Your task to perform on an android device: Open wifi settings Image 0: 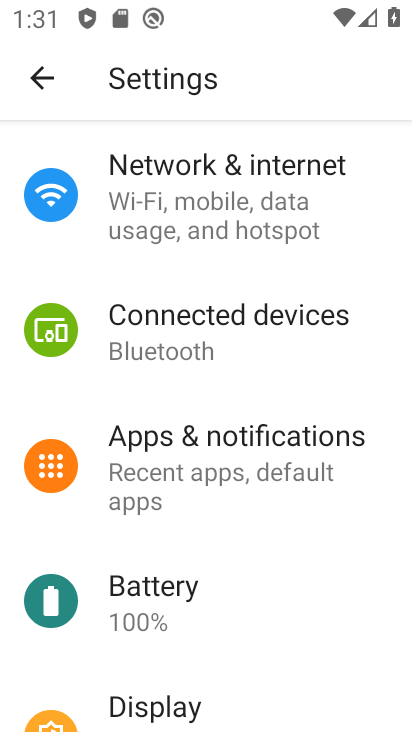
Step 0: drag from (130, 14) to (221, 647)
Your task to perform on an android device: Open wifi settings Image 1: 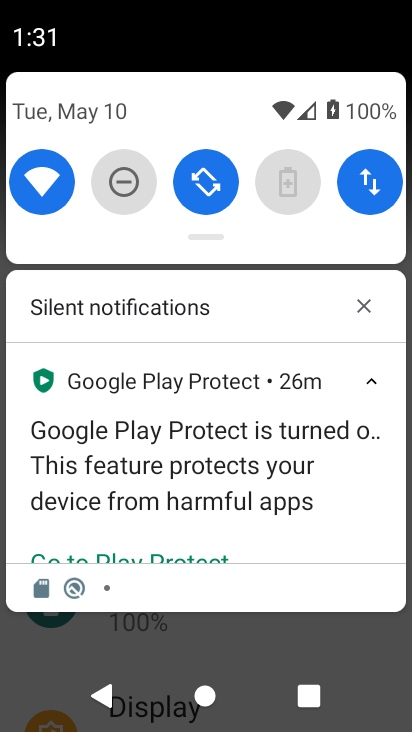
Step 1: click (44, 190)
Your task to perform on an android device: Open wifi settings Image 2: 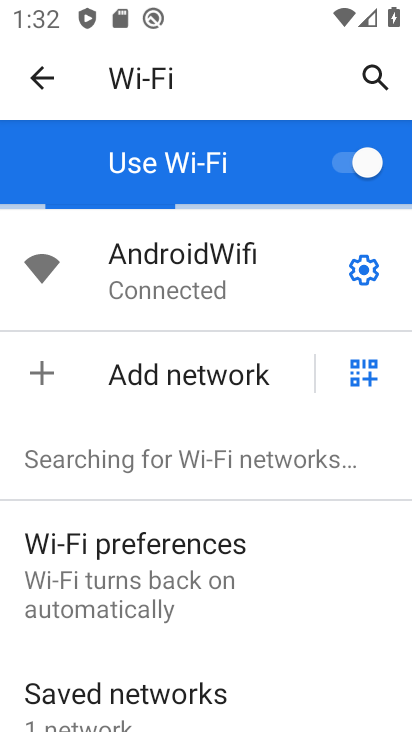
Step 2: task complete